Your task to perform on an android device: all mails in gmail Image 0: 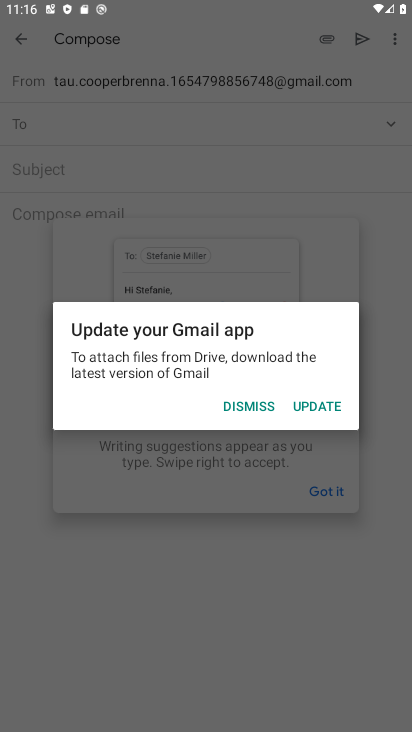
Step 0: press home button
Your task to perform on an android device: all mails in gmail Image 1: 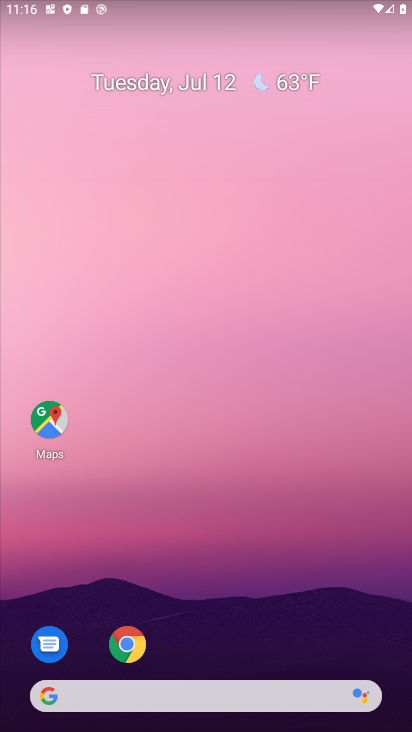
Step 1: drag from (202, 702) to (257, 181)
Your task to perform on an android device: all mails in gmail Image 2: 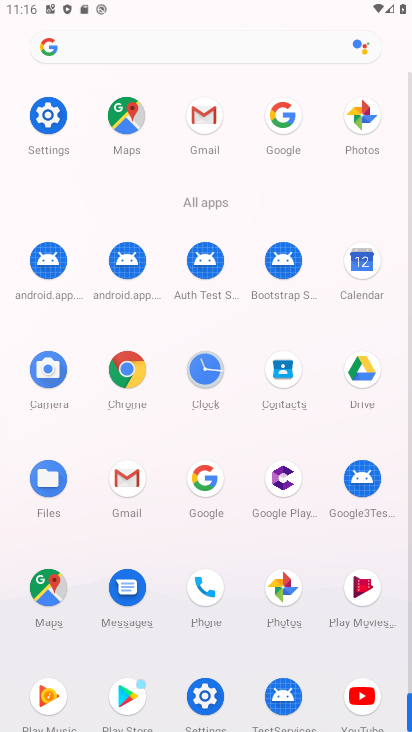
Step 2: click (204, 115)
Your task to perform on an android device: all mails in gmail Image 3: 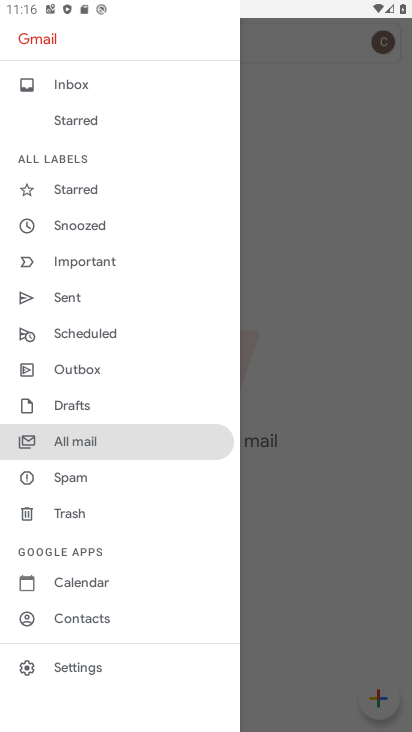
Step 3: click (87, 90)
Your task to perform on an android device: all mails in gmail Image 4: 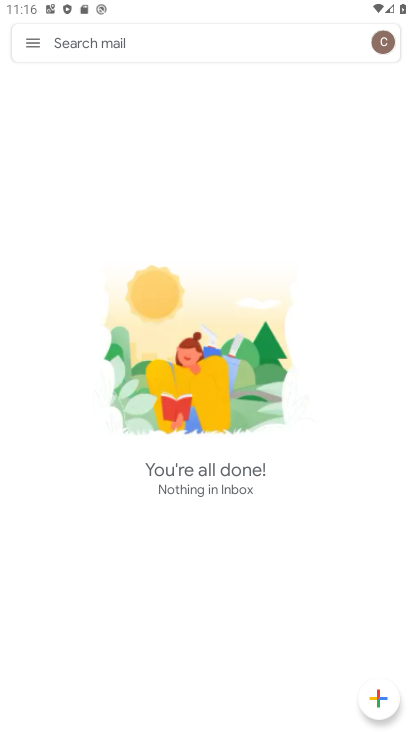
Step 4: click (36, 41)
Your task to perform on an android device: all mails in gmail Image 5: 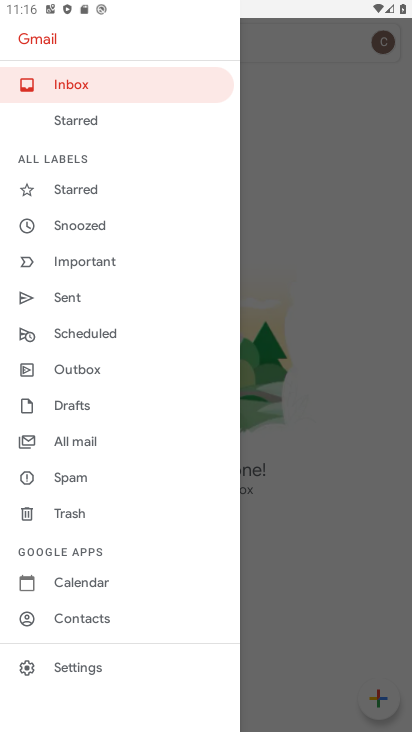
Step 5: click (81, 434)
Your task to perform on an android device: all mails in gmail Image 6: 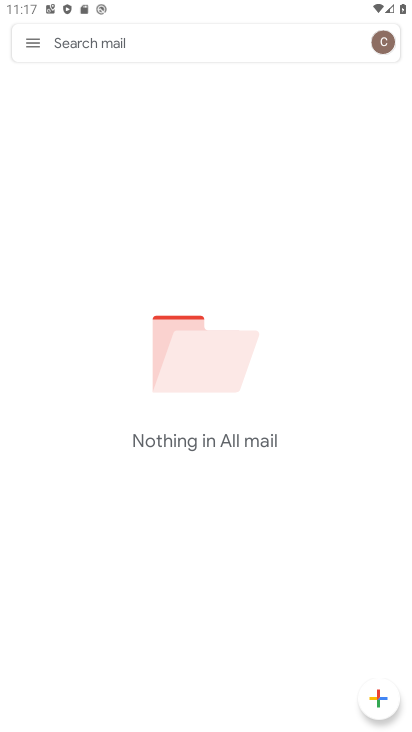
Step 6: task complete